Your task to perform on an android device: Open the map Image 0: 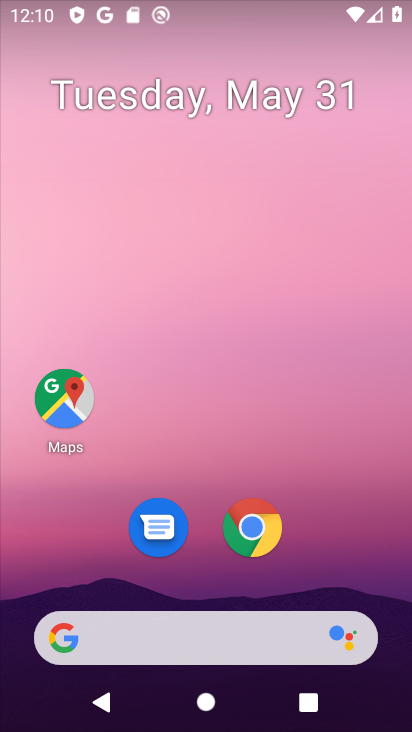
Step 0: drag from (266, 658) to (154, 245)
Your task to perform on an android device: Open the map Image 1: 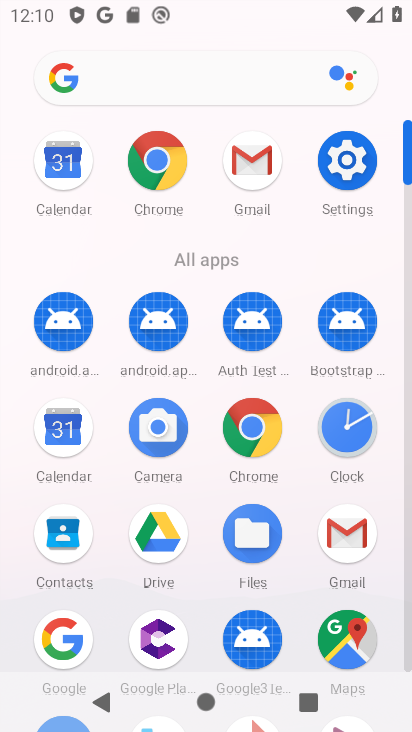
Step 1: click (350, 639)
Your task to perform on an android device: Open the map Image 2: 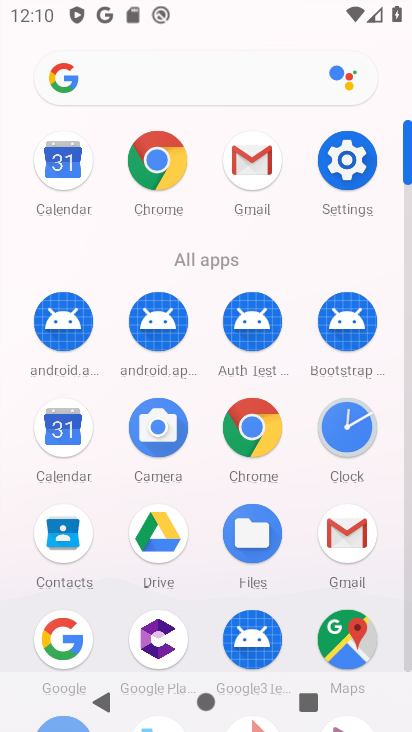
Step 2: click (350, 639)
Your task to perform on an android device: Open the map Image 3: 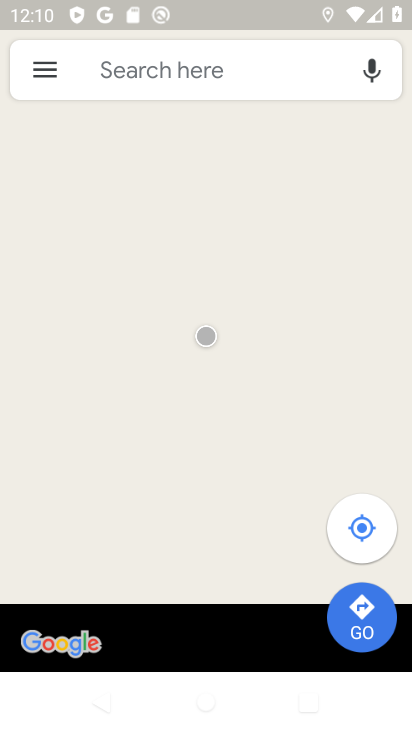
Step 3: task complete